Your task to perform on an android device: Go to Amazon Image 0: 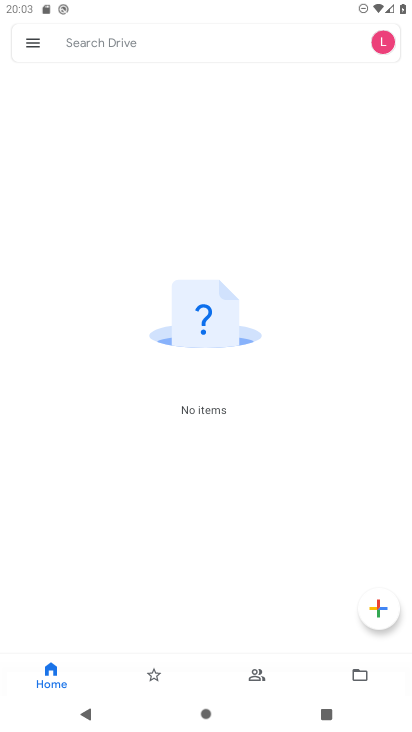
Step 0: press home button
Your task to perform on an android device: Go to Amazon Image 1: 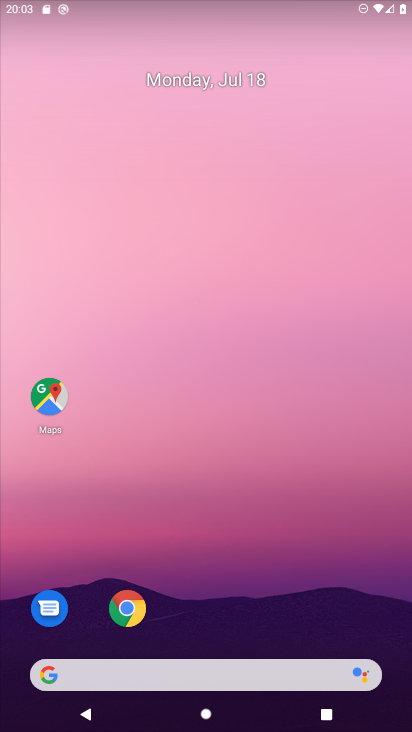
Step 1: drag from (219, 630) to (246, 103)
Your task to perform on an android device: Go to Amazon Image 2: 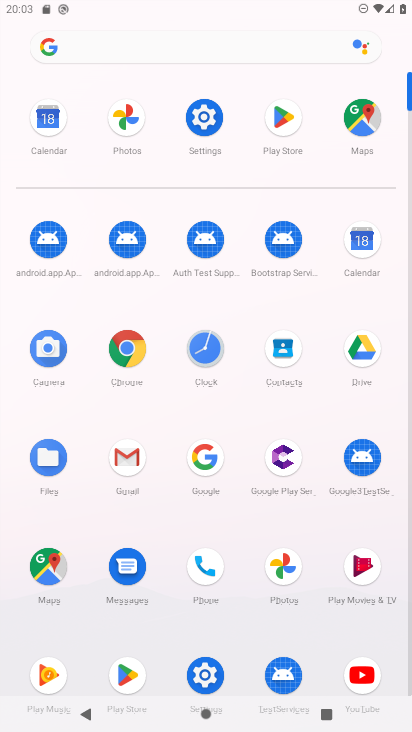
Step 2: click (125, 346)
Your task to perform on an android device: Go to Amazon Image 3: 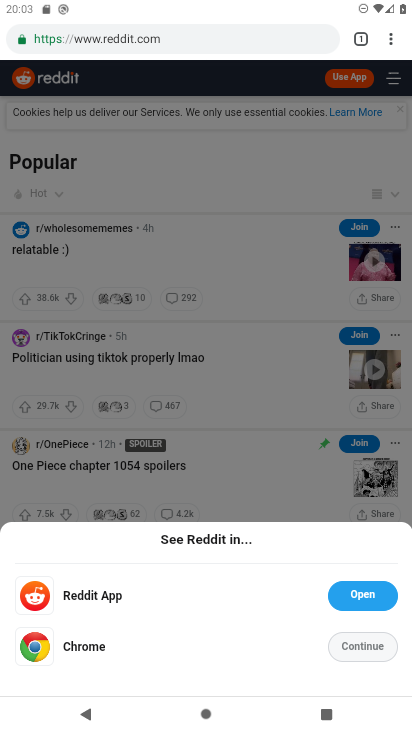
Step 3: click (358, 37)
Your task to perform on an android device: Go to Amazon Image 4: 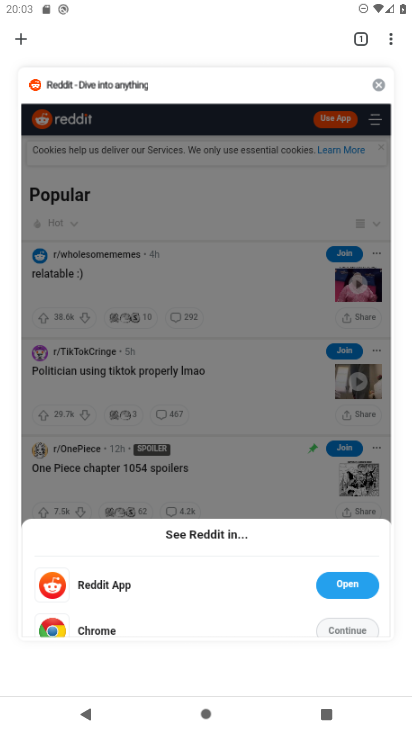
Step 4: click (17, 38)
Your task to perform on an android device: Go to Amazon Image 5: 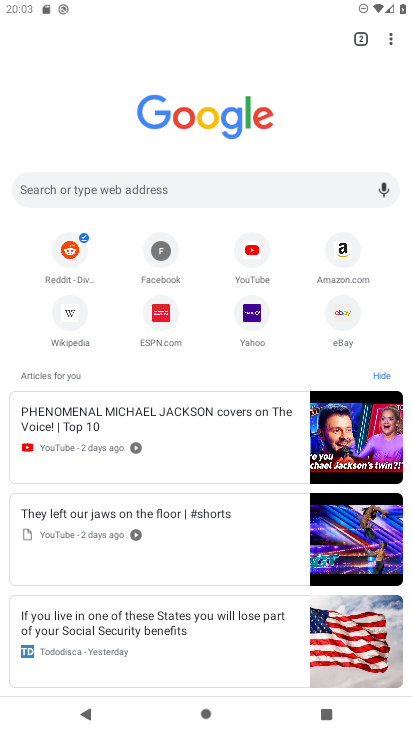
Step 5: click (345, 253)
Your task to perform on an android device: Go to Amazon Image 6: 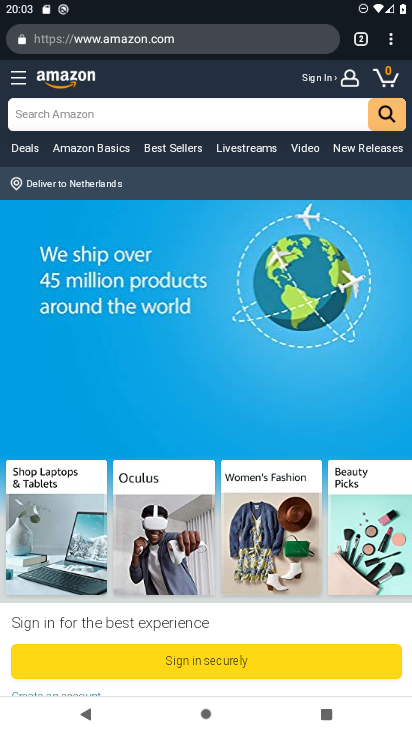
Step 6: task complete